Your task to perform on an android device: Open calendar and show me the first week of next month Image 0: 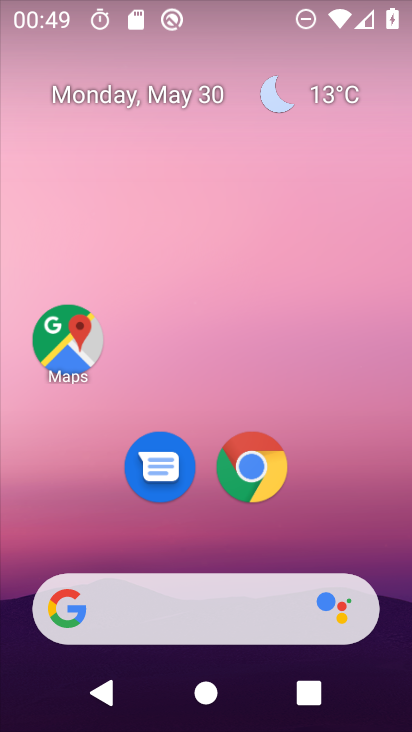
Step 0: drag from (210, 545) to (169, 219)
Your task to perform on an android device: Open calendar and show me the first week of next month Image 1: 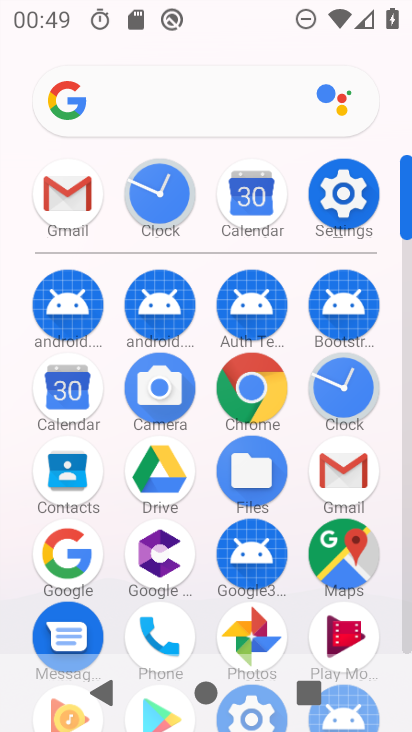
Step 1: click (239, 212)
Your task to perform on an android device: Open calendar and show me the first week of next month Image 2: 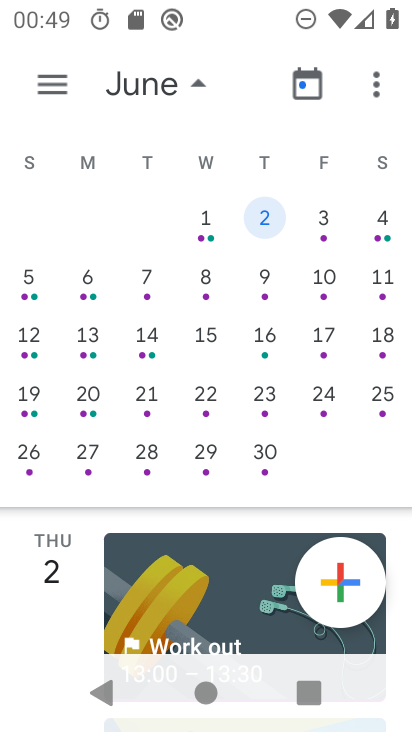
Step 2: click (218, 213)
Your task to perform on an android device: Open calendar and show me the first week of next month Image 3: 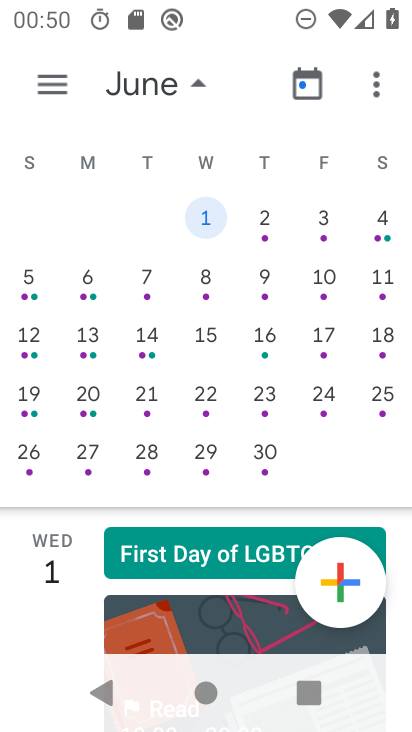
Step 3: task complete